Your task to perform on an android device: turn off priority inbox in the gmail app Image 0: 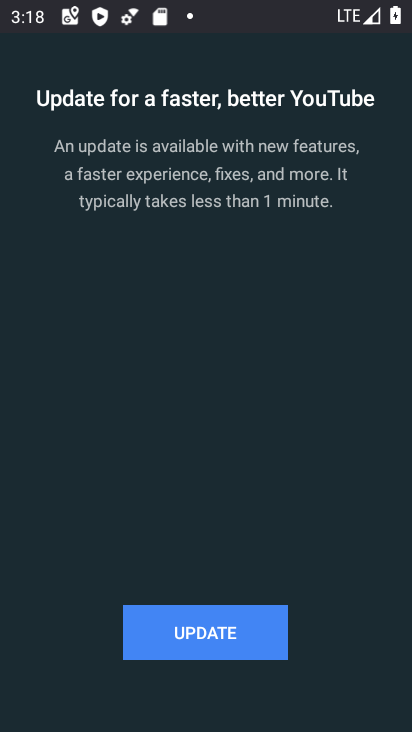
Step 0: press home button
Your task to perform on an android device: turn off priority inbox in the gmail app Image 1: 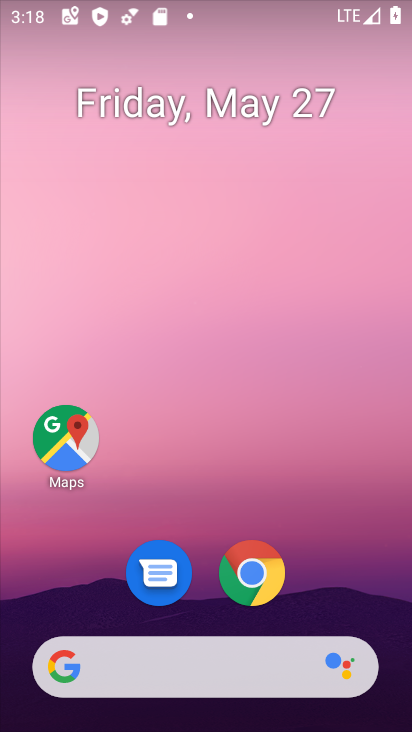
Step 1: drag from (312, 567) to (304, 59)
Your task to perform on an android device: turn off priority inbox in the gmail app Image 2: 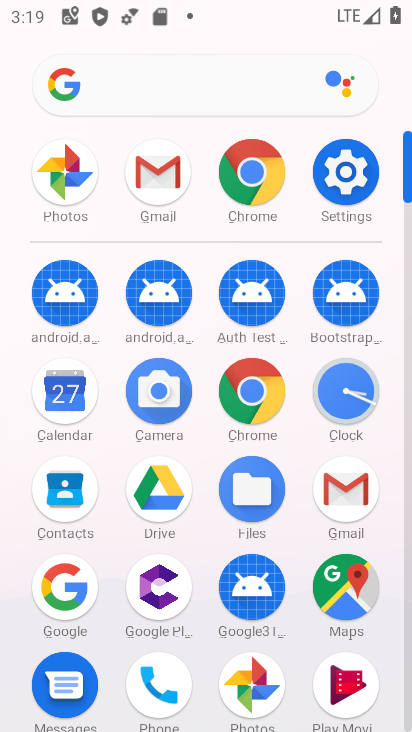
Step 2: click (162, 167)
Your task to perform on an android device: turn off priority inbox in the gmail app Image 3: 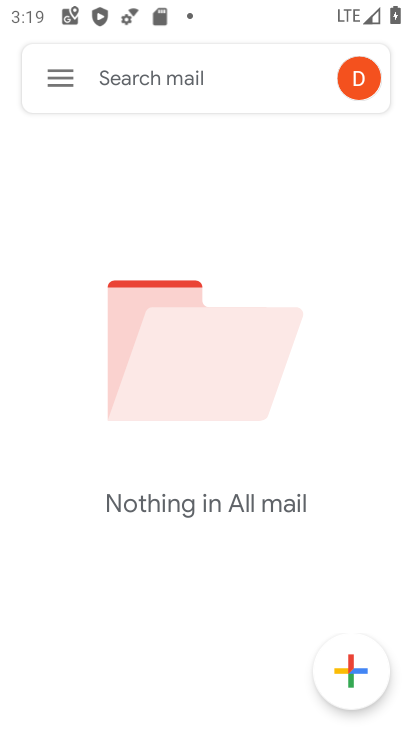
Step 3: click (60, 74)
Your task to perform on an android device: turn off priority inbox in the gmail app Image 4: 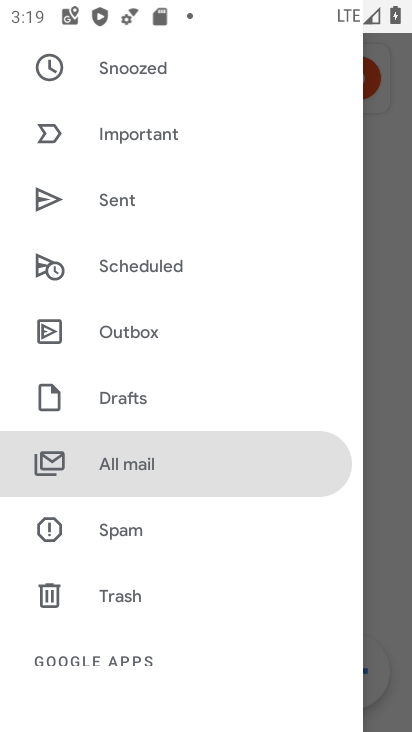
Step 4: drag from (193, 559) to (211, 268)
Your task to perform on an android device: turn off priority inbox in the gmail app Image 5: 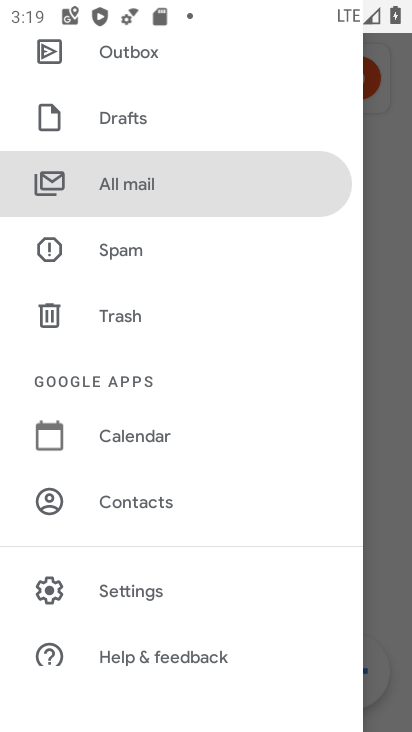
Step 5: click (154, 585)
Your task to perform on an android device: turn off priority inbox in the gmail app Image 6: 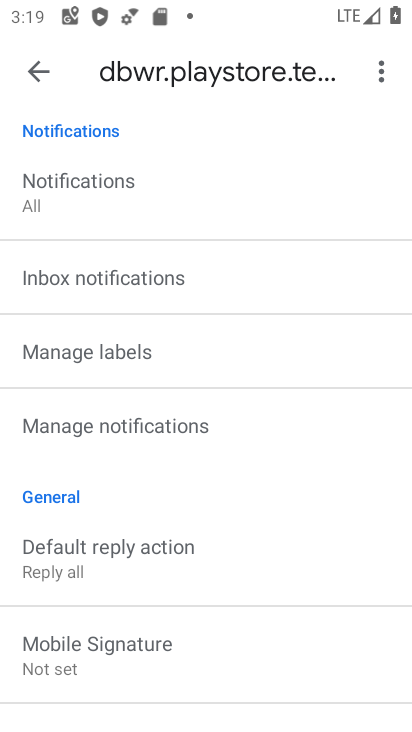
Step 6: drag from (240, 213) to (207, 623)
Your task to perform on an android device: turn off priority inbox in the gmail app Image 7: 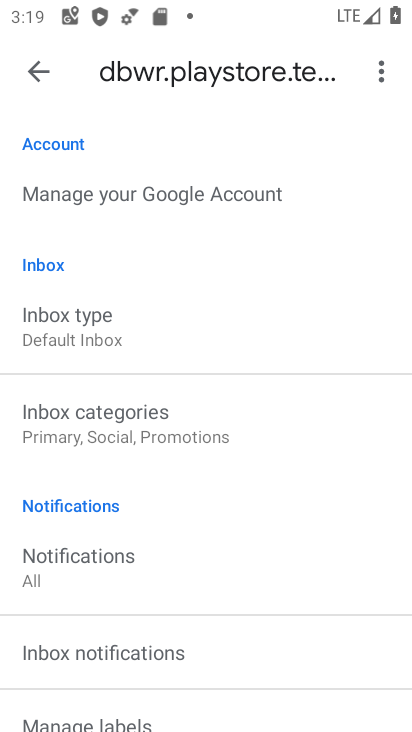
Step 7: click (95, 320)
Your task to perform on an android device: turn off priority inbox in the gmail app Image 8: 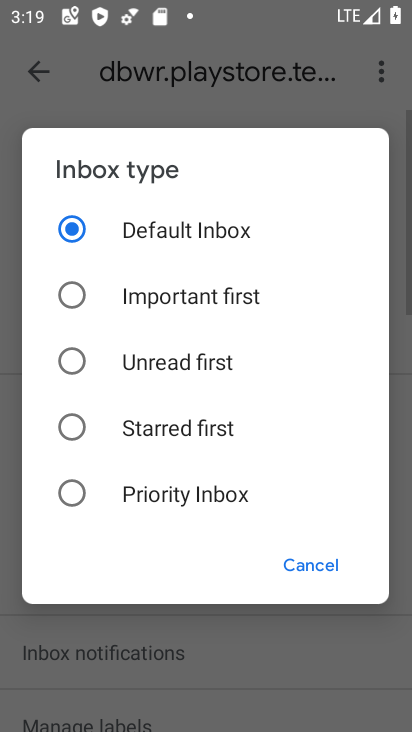
Step 8: click (87, 284)
Your task to perform on an android device: turn off priority inbox in the gmail app Image 9: 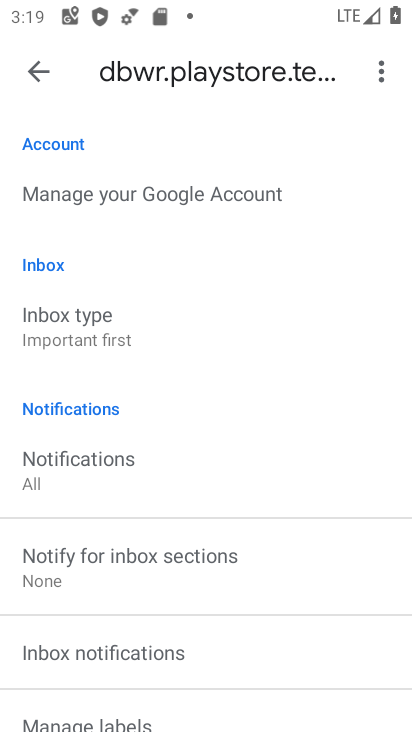
Step 9: task complete